Your task to perform on an android device: Show me productivity apps on the Play Store Image 0: 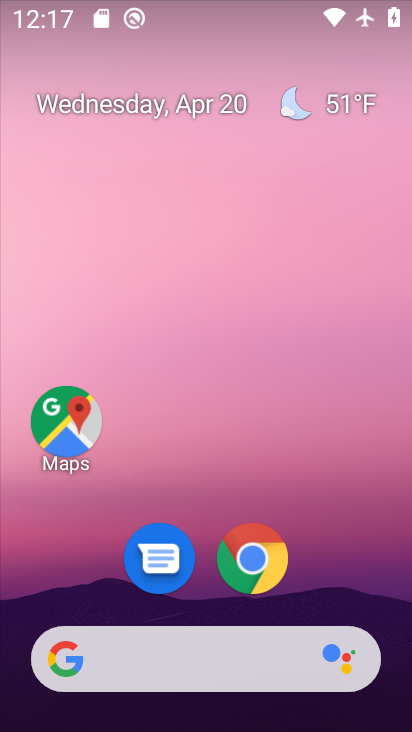
Step 0: drag from (384, 612) to (311, 233)
Your task to perform on an android device: Show me productivity apps on the Play Store Image 1: 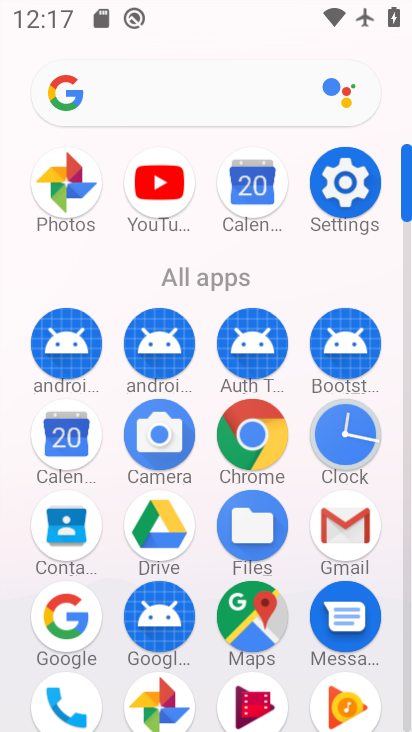
Step 1: click (406, 694)
Your task to perform on an android device: Show me productivity apps on the Play Store Image 2: 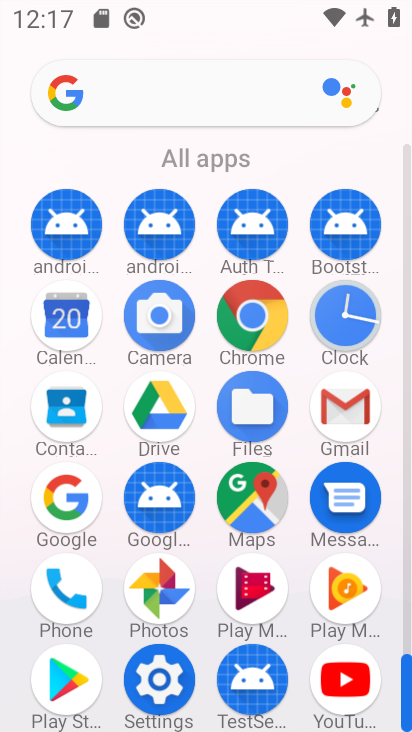
Step 2: click (58, 679)
Your task to perform on an android device: Show me productivity apps on the Play Store Image 3: 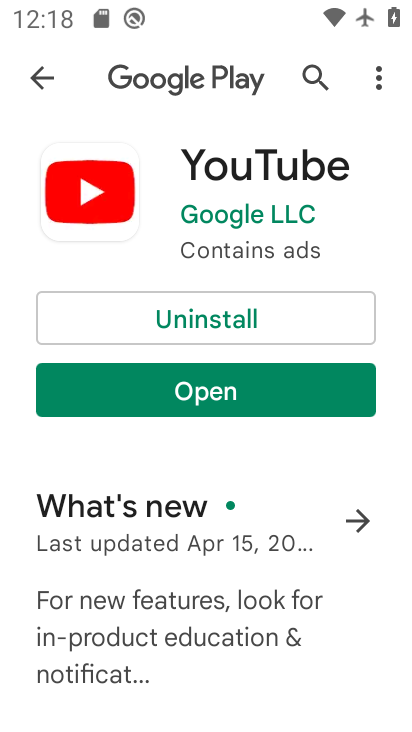
Step 3: press back button
Your task to perform on an android device: Show me productivity apps on the Play Store Image 4: 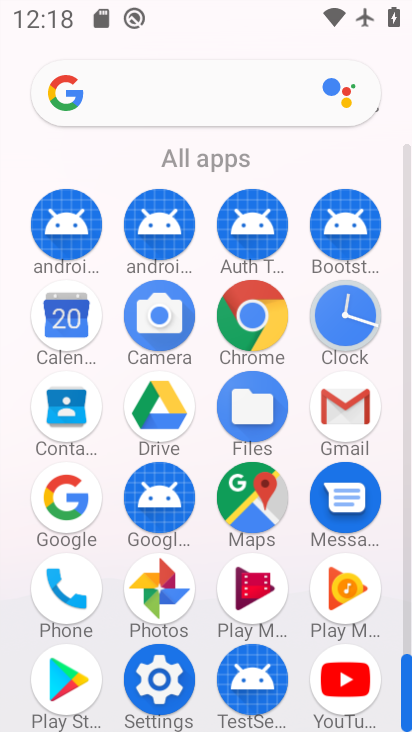
Step 4: click (71, 679)
Your task to perform on an android device: Show me productivity apps on the Play Store Image 5: 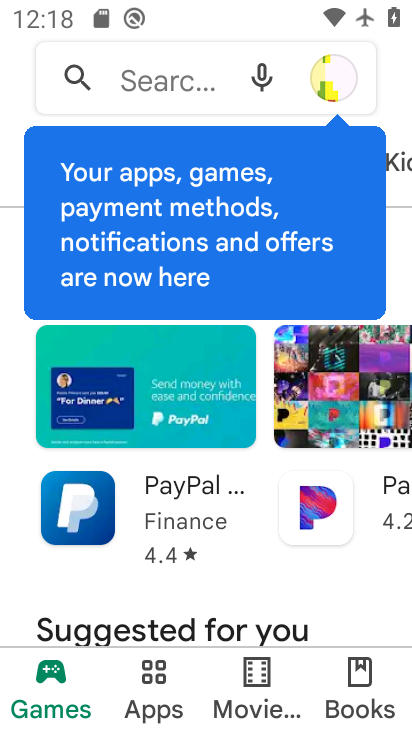
Step 5: click (152, 683)
Your task to perform on an android device: Show me productivity apps on the Play Store Image 6: 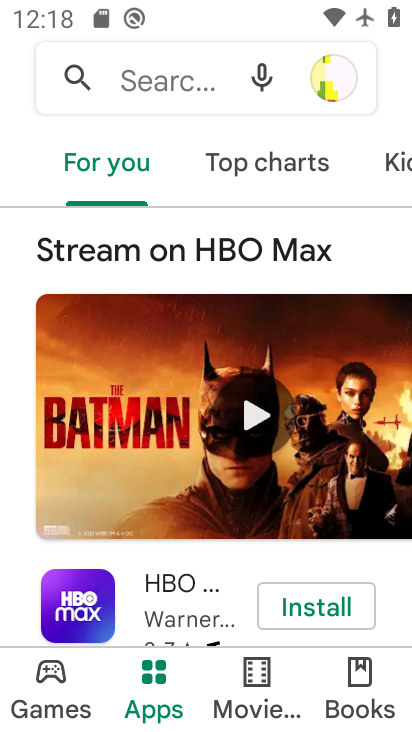
Step 6: drag from (390, 161) to (1, 71)
Your task to perform on an android device: Show me productivity apps on the Play Store Image 7: 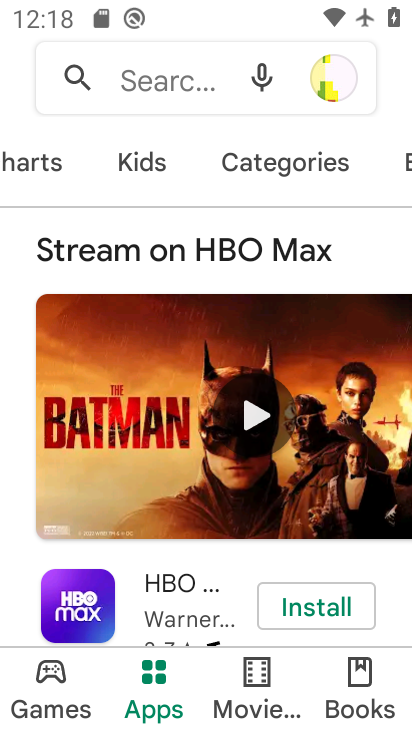
Step 7: click (282, 163)
Your task to perform on an android device: Show me productivity apps on the Play Store Image 8: 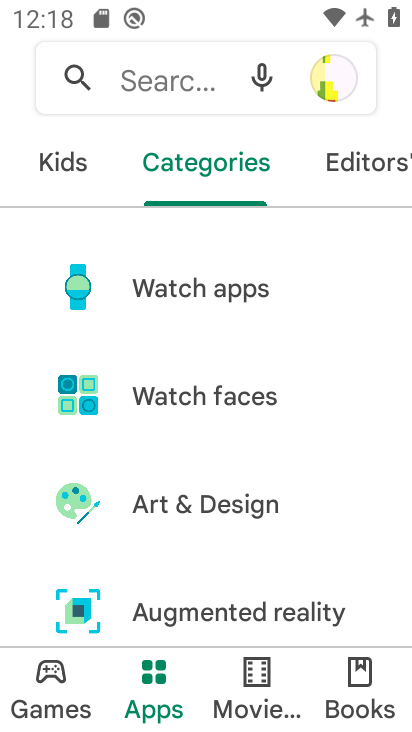
Step 8: drag from (324, 567) to (315, 302)
Your task to perform on an android device: Show me productivity apps on the Play Store Image 9: 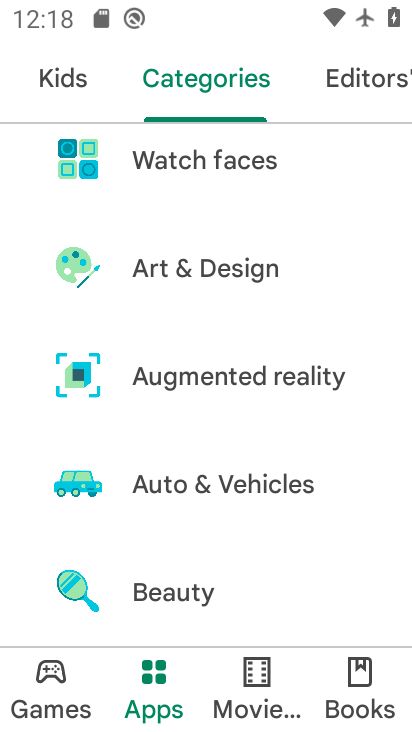
Step 9: drag from (305, 563) to (338, 268)
Your task to perform on an android device: Show me productivity apps on the Play Store Image 10: 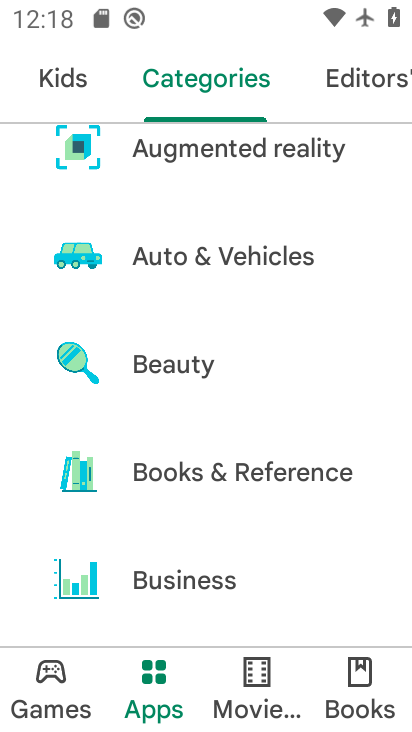
Step 10: drag from (286, 577) to (325, 283)
Your task to perform on an android device: Show me productivity apps on the Play Store Image 11: 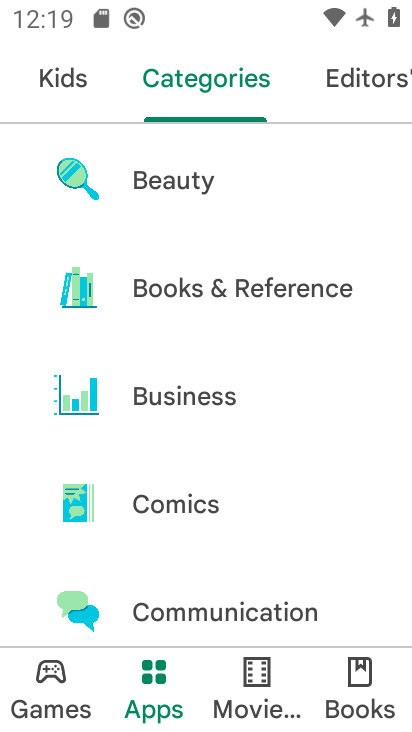
Step 11: drag from (335, 613) to (318, 302)
Your task to perform on an android device: Show me productivity apps on the Play Store Image 12: 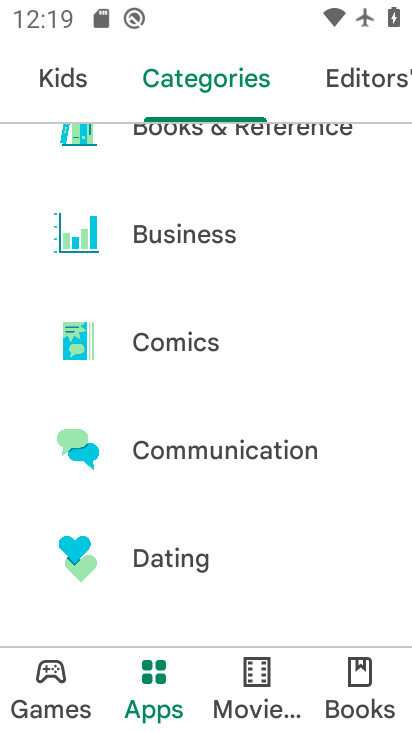
Step 12: drag from (305, 545) to (357, 251)
Your task to perform on an android device: Show me productivity apps on the Play Store Image 13: 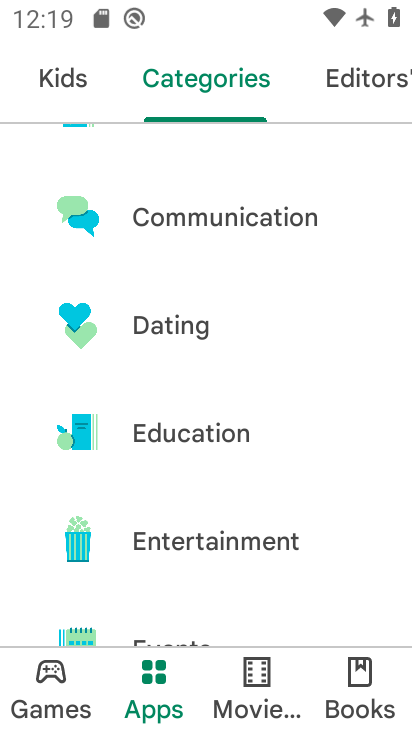
Step 13: drag from (335, 573) to (323, 224)
Your task to perform on an android device: Show me productivity apps on the Play Store Image 14: 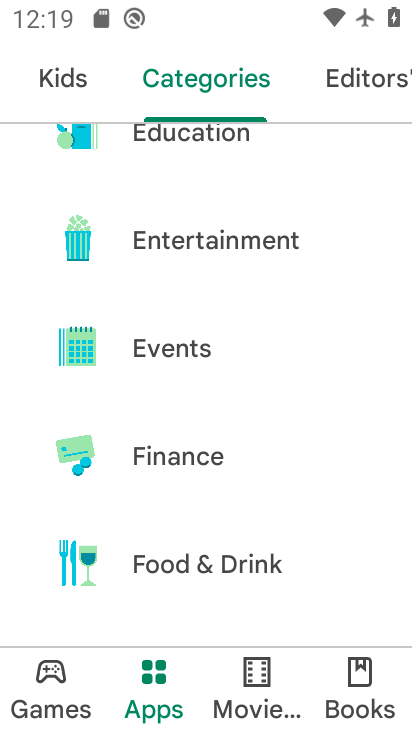
Step 14: drag from (319, 609) to (301, 209)
Your task to perform on an android device: Show me productivity apps on the Play Store Image 15: 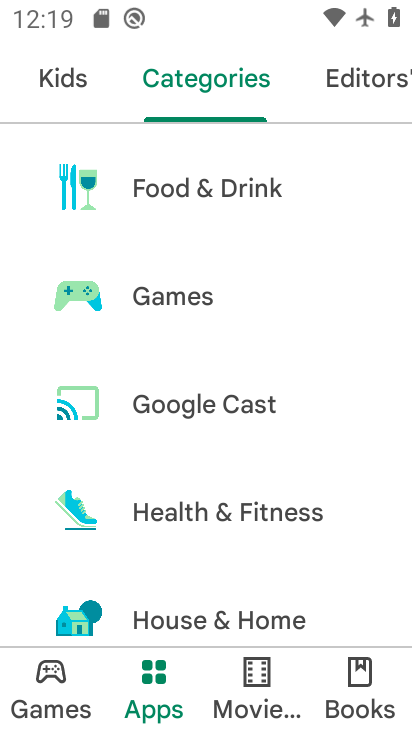
Step 15: drag from (339, 606) to (323, 151)
Your task to perform on an android device: Show me productivity apps on the Play Store Image 16: 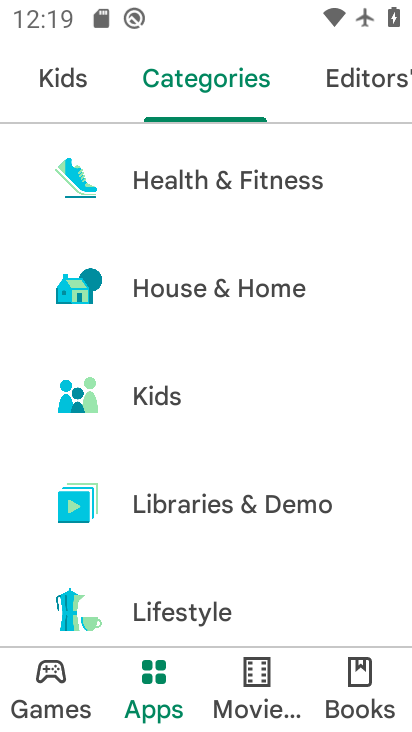
Step 16: drag from (341, 582) to (339, 216)
Your task to perform on an android device: Show me productivity apps on the Play Store Image 17: 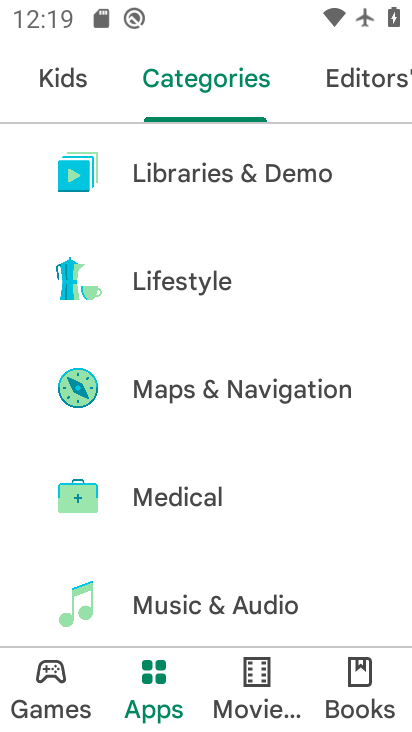
Step 17: drag from (313, 581) to (350, 187)
Your task to perform on an android device: Show me productivity apps on the Play Store Image 18: 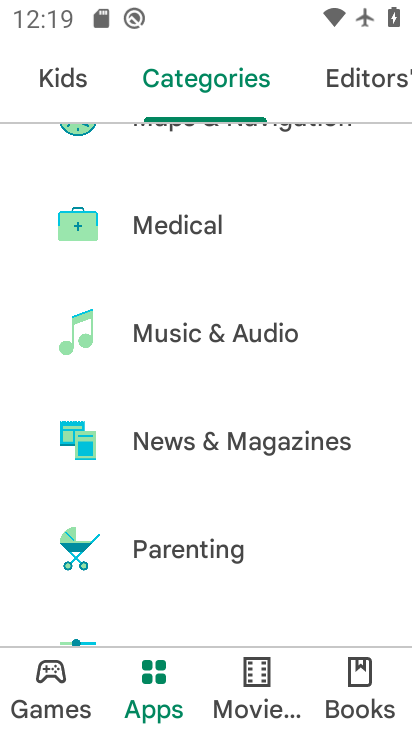
Step 18: drag from (323, 560) to (351, 175)
Your task to perform on an android device: Show me productivity apps on the Play Store Image 19: 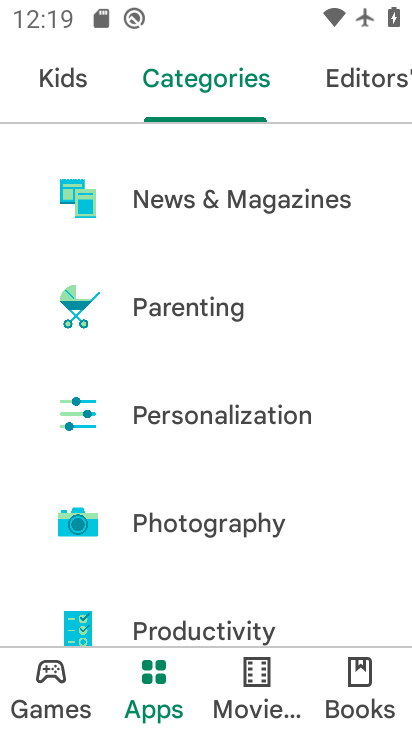
Step 19: drag from (315, 613) to (338, 166)
Your task to perform on an android device: Show me productivity apps on the Play Store Image 20: 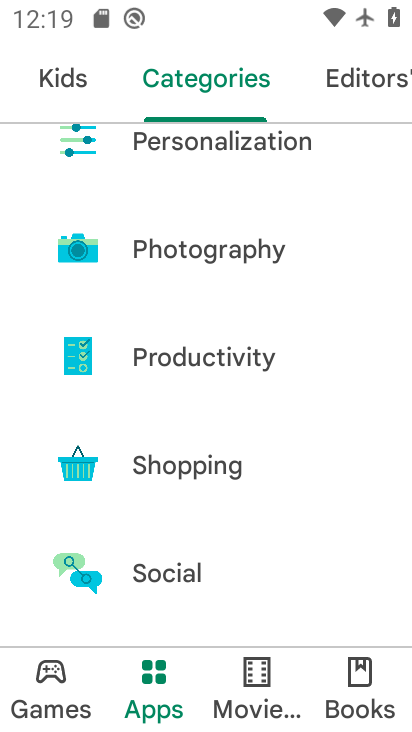
Step 20: click (174, 359)
Your task to perform on an android device: Show me productivity apps on the Play Store Image 21: 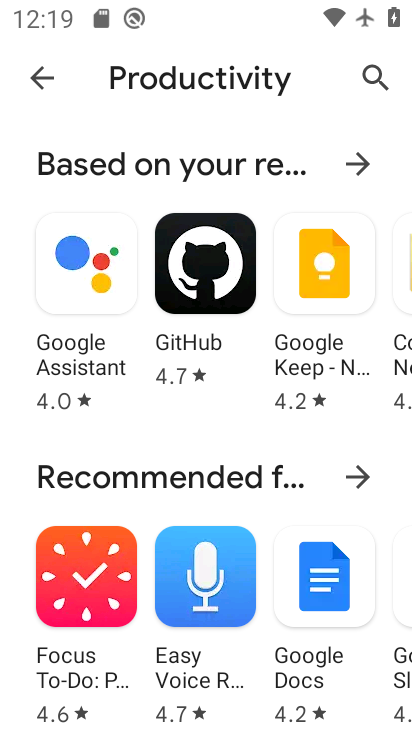
Step 21: task complete